Your task to perform on an android device: Go to location settings Image 0: 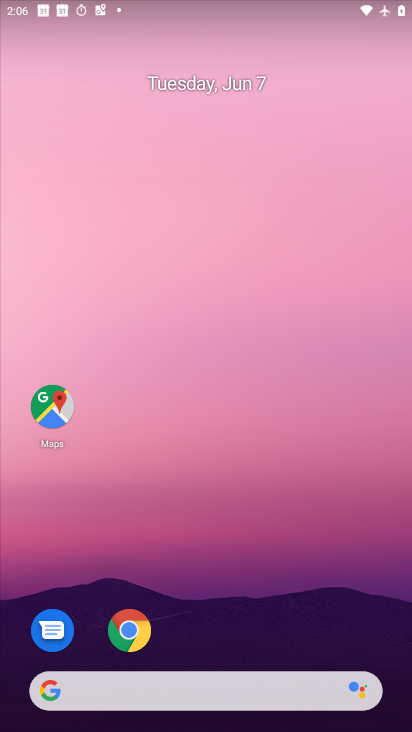
Step 0: drag from (372, 606) to (251, 140)
Your task to perform on an android device: Go to location settings Image 1: 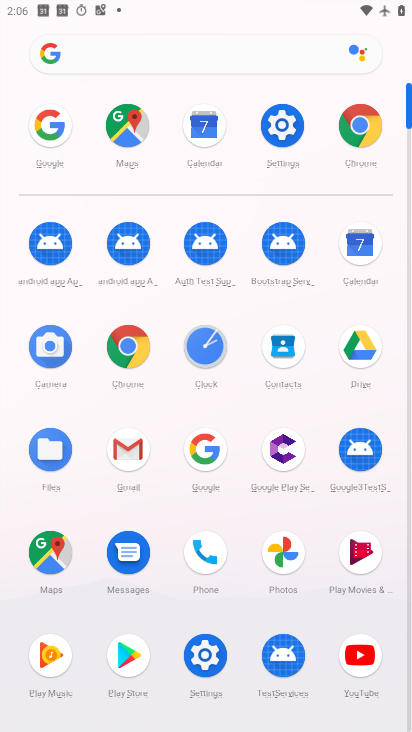
Step 1: click (212, 664)
Your task to perform on an android device: Go to location settings Image 2: 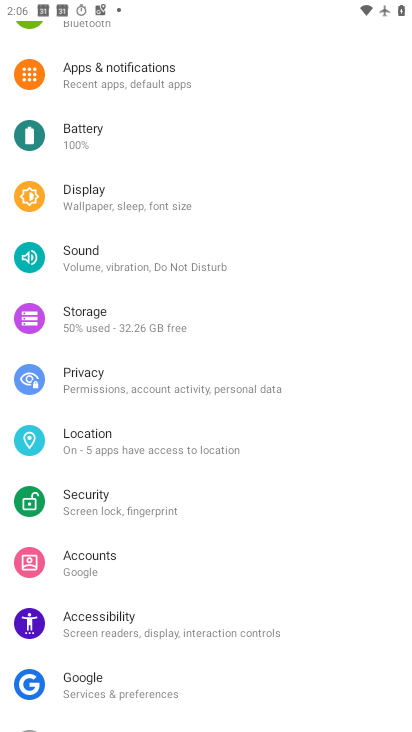
Step 2: click (134, 437)
Your task to perform on an android device: Go to location settings Image 3: 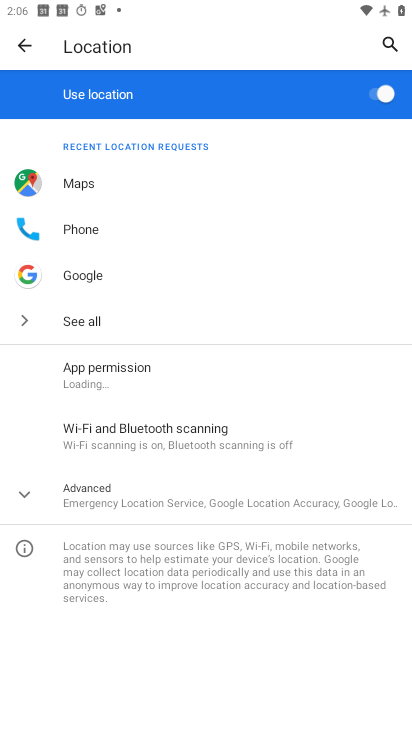
Step 3: task complete